Your task to perform on an android device: Show me the alarms in the clock app Image 0: 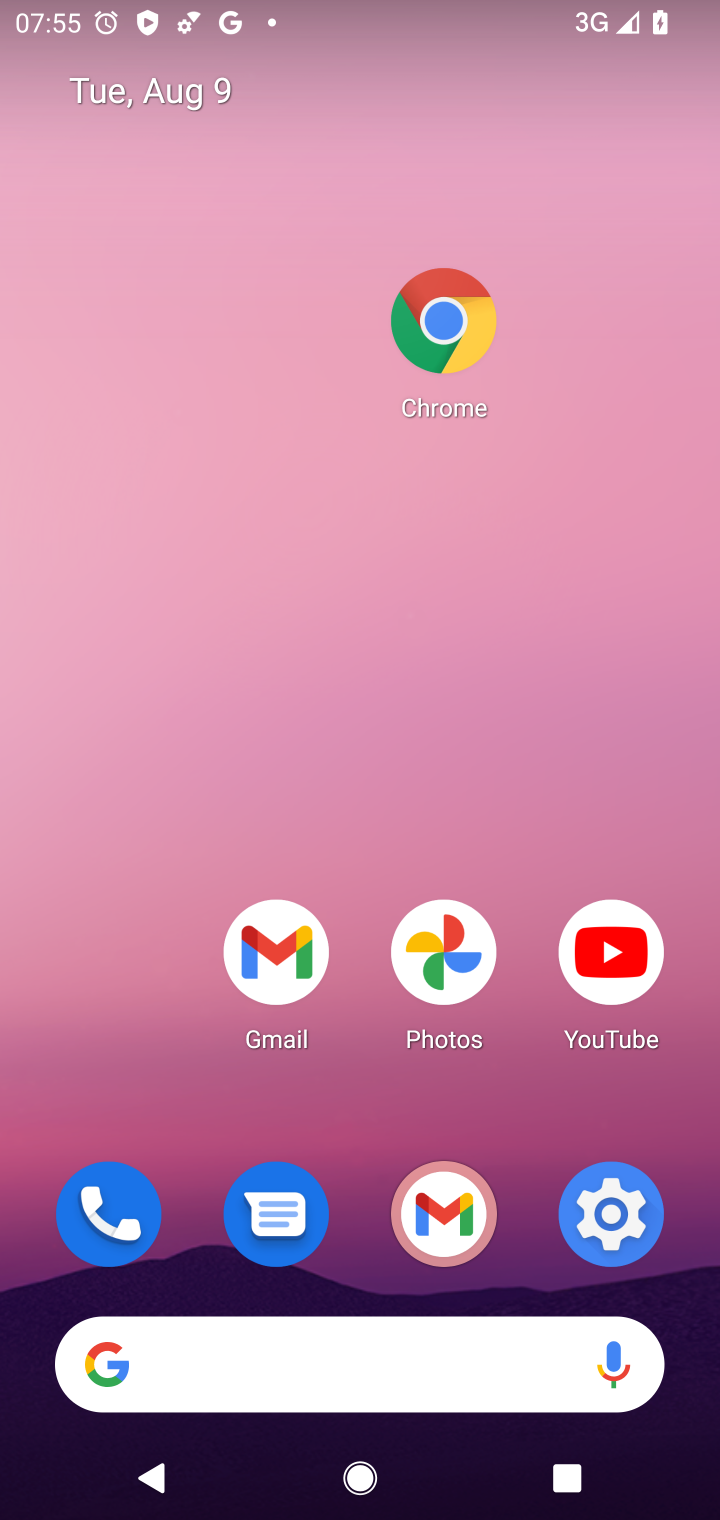
Step 0: press home button
Your task to perform on an android device: Show me the alarms in the clock app Image 1: 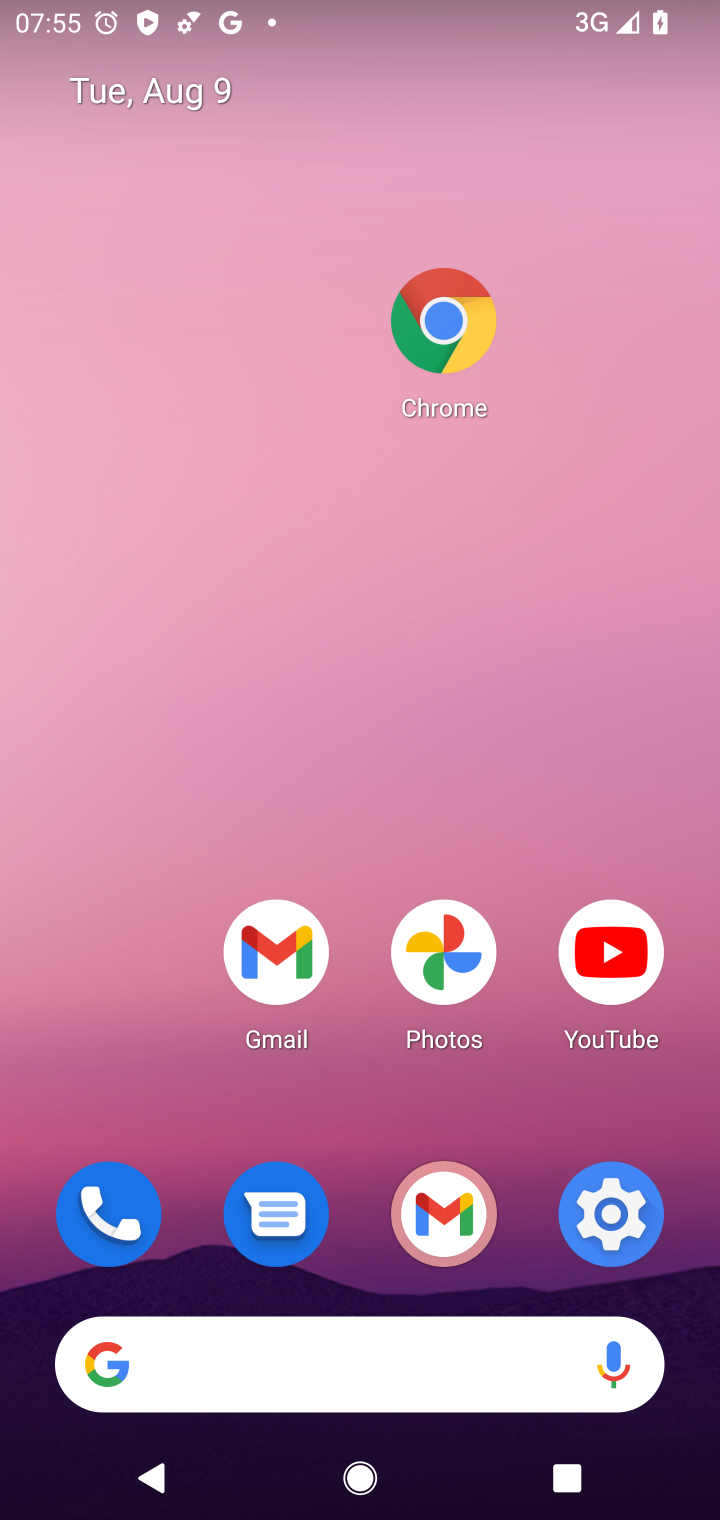
Step 1: drag from (478, 1306) to (336, 287)
Your task to perform on an android device: Show me the alarms in the clock app Image 2: 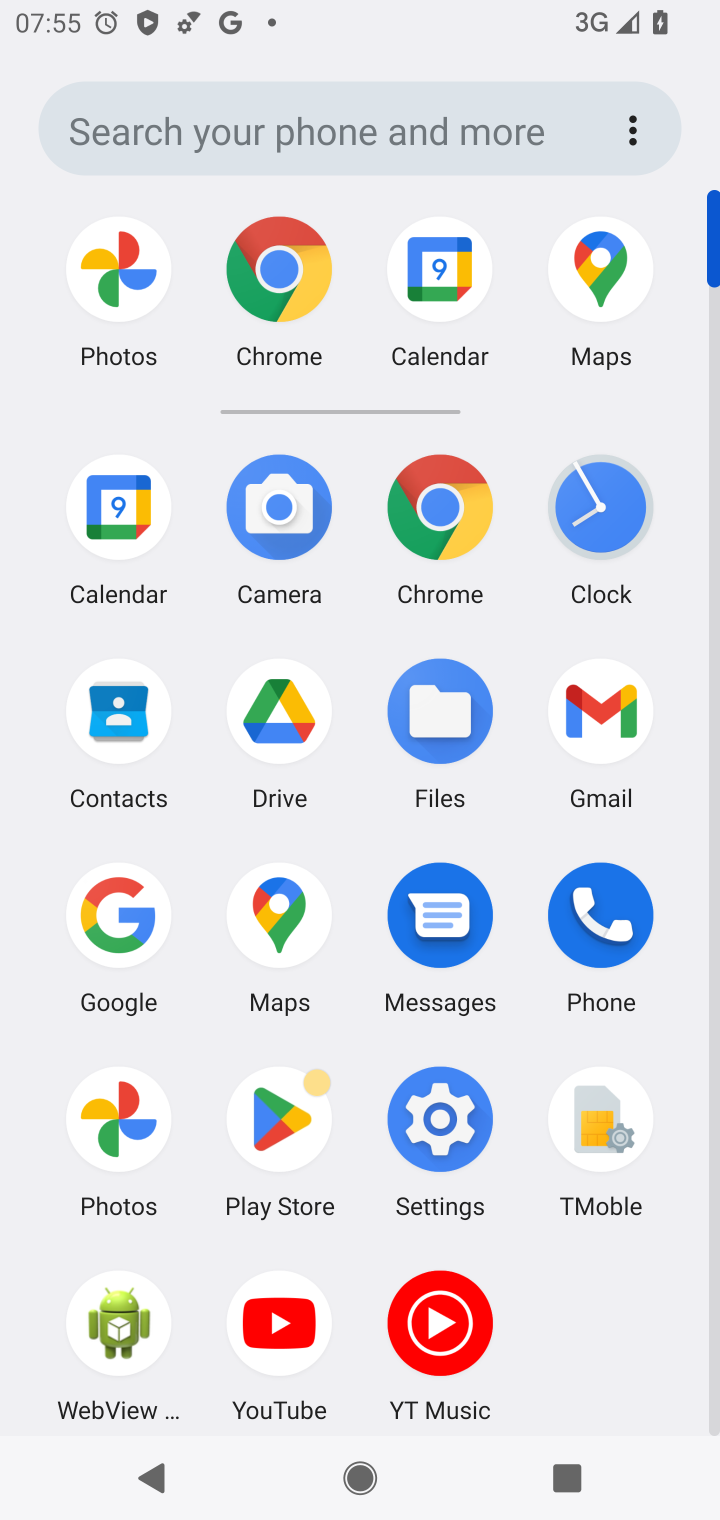
Step 2: click (597, 520)
Your task to perform on an android device: Show me the alarms in the clock app Image 3: 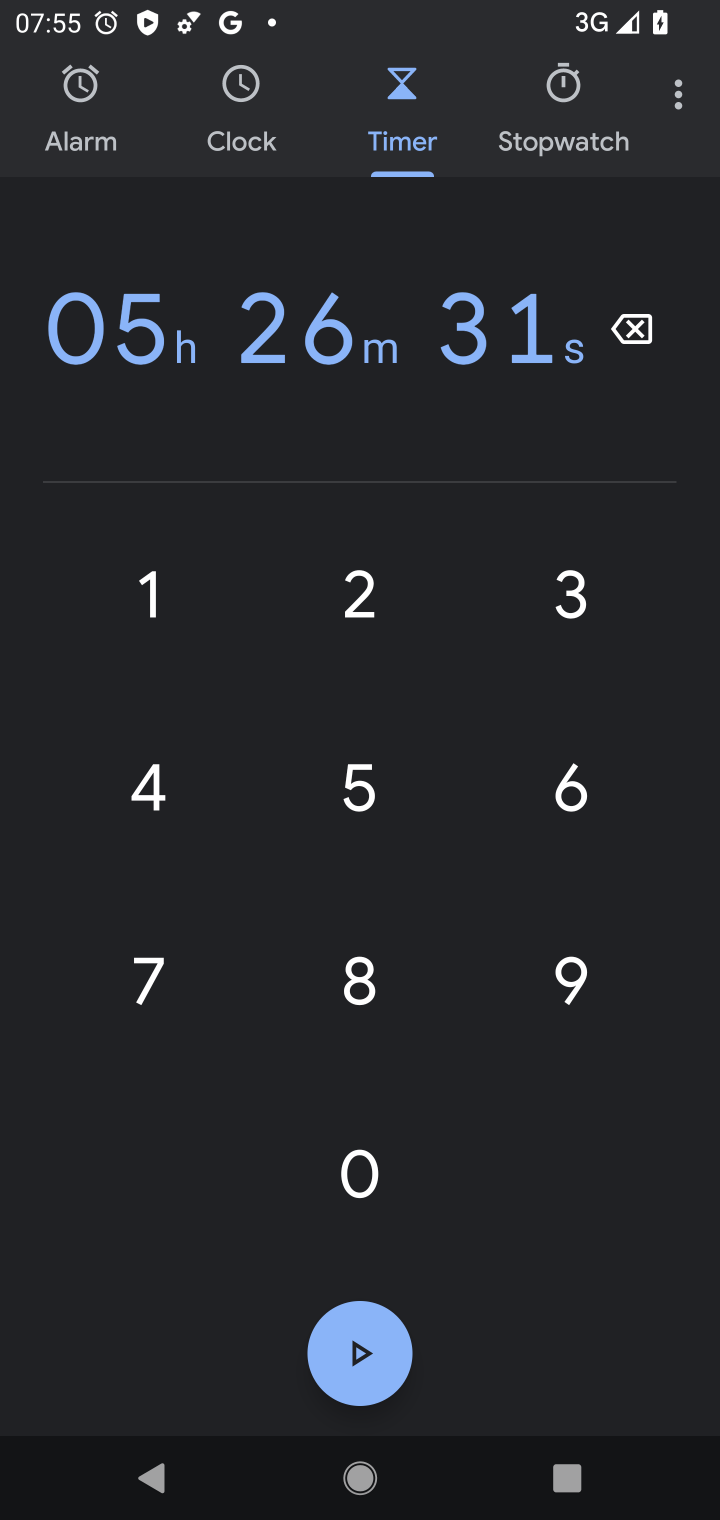
Step 3: click (104, 150)
Your task to perform on an android device: Show me the alarms in the clock app Image 4: 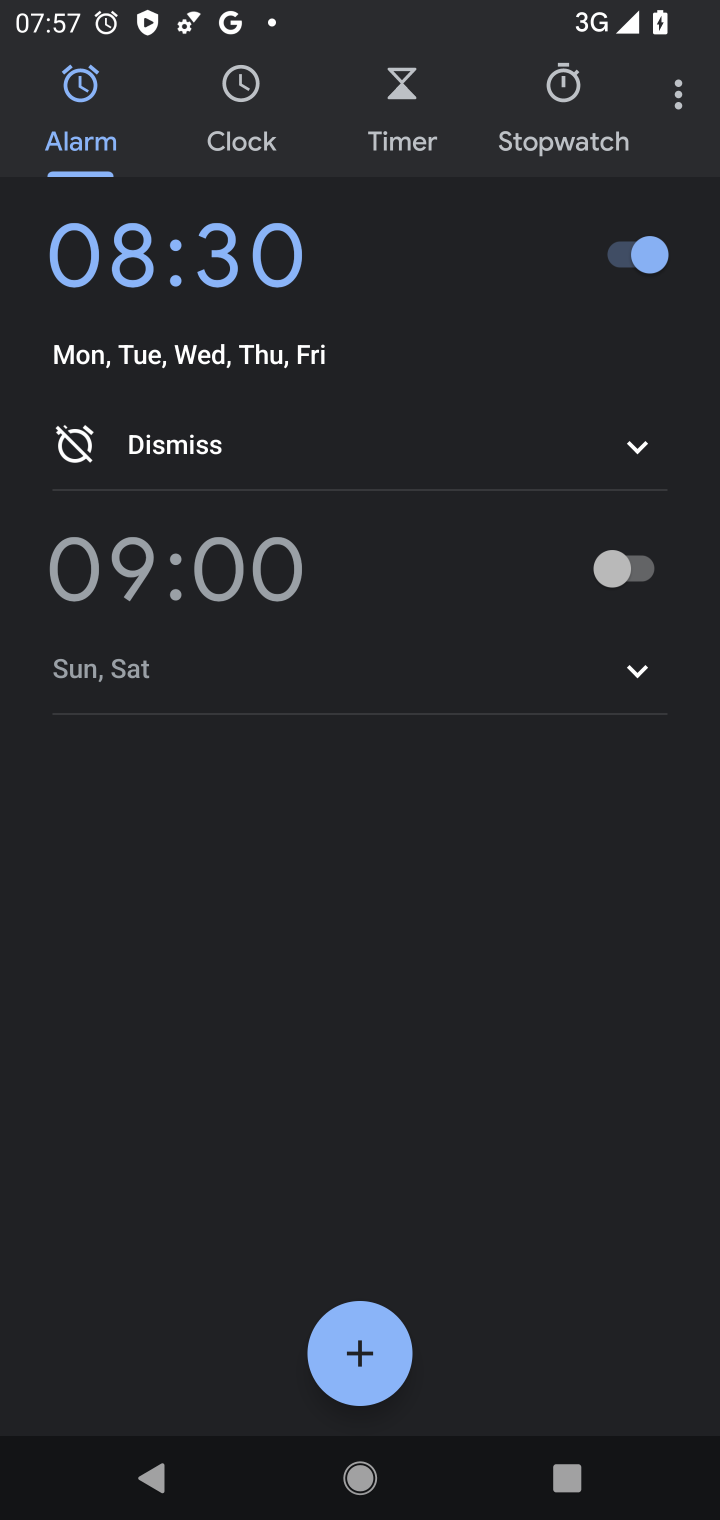
Step 4: task complete